Your task to perform on an android device: Open the Play Movies app and select the watchlist tab. Image 0: 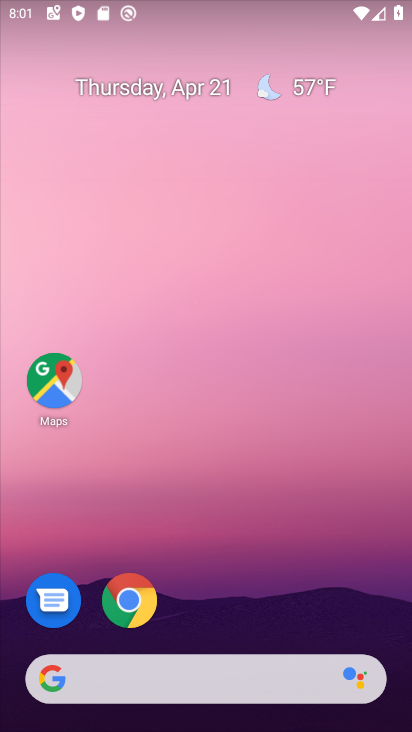
Step 0: drag from (309, 434) to (328, 139)
Your task to perform on an android device: Open the Play Movies app and select the watchlist tab. Image 1: 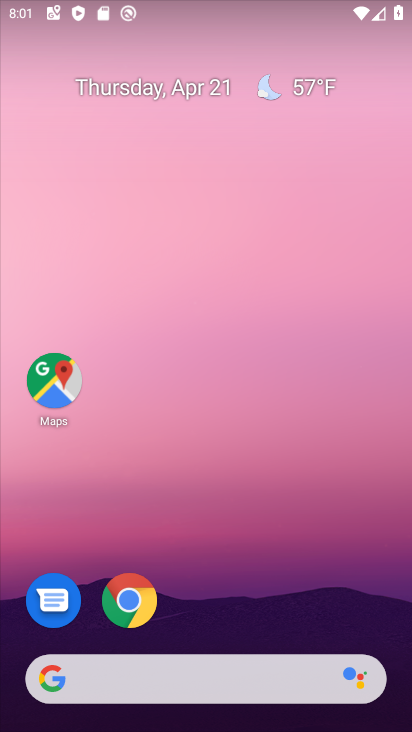
Step 1: drag from (302, 196) to (328, 74)
Your task to perform on an android device: Open the Play Movies app and select the watchlist tab. Image 2: 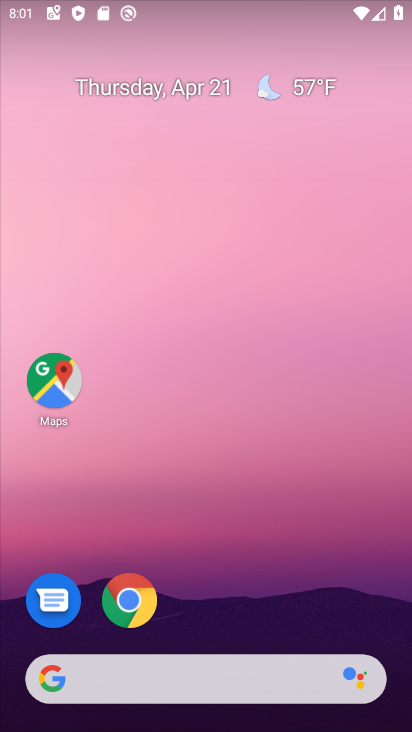
Step 2: drag from (248, 517) to (270, 138)
Your task to perform on an android device: Open the Play Movies app and select the watchlist tab. Image 3: 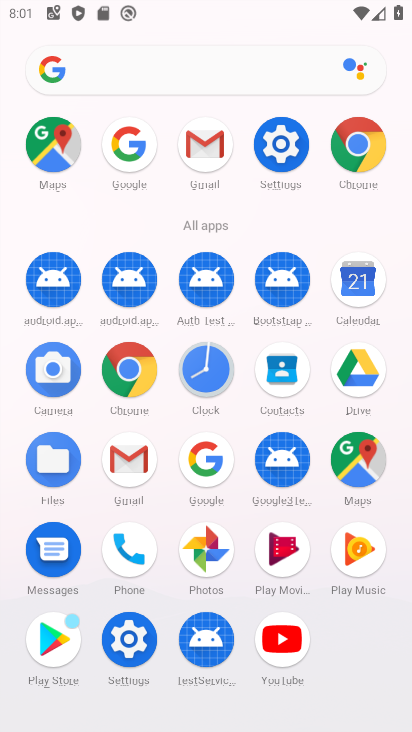
Step 3: click (279, 552)
Your task to perform on an android device: Open the Play Movies app and select the watchlist tab. Image 4: 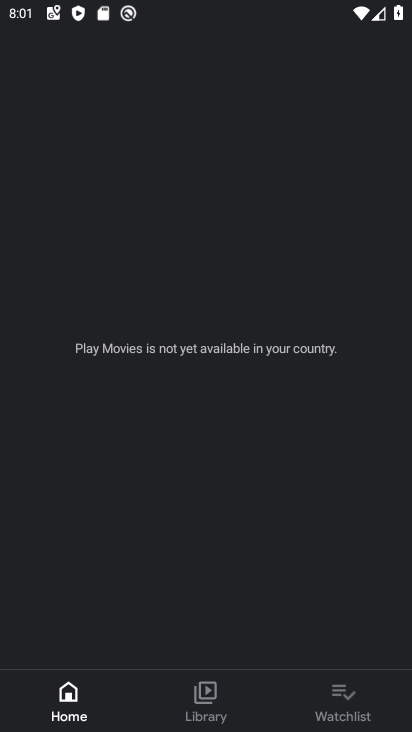
Step 4: click (349, 695)
Your task to perform on an android device: Open the Play Movies app and select the watchlist tab. Image 5: 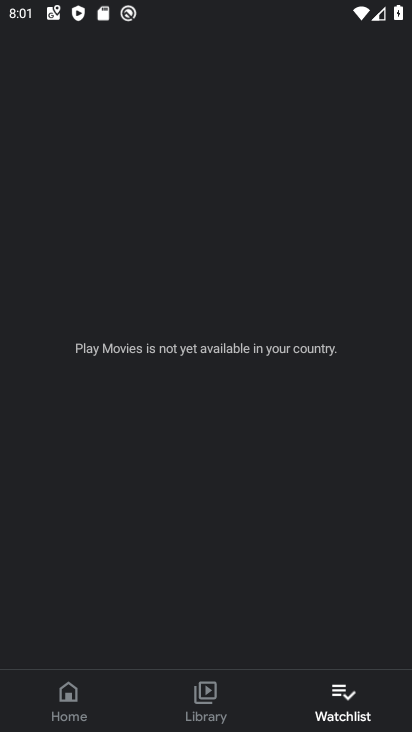
Step 5: task complete